Your task to perform on an android device: Search for pizza restaurants on Maps Image 0: 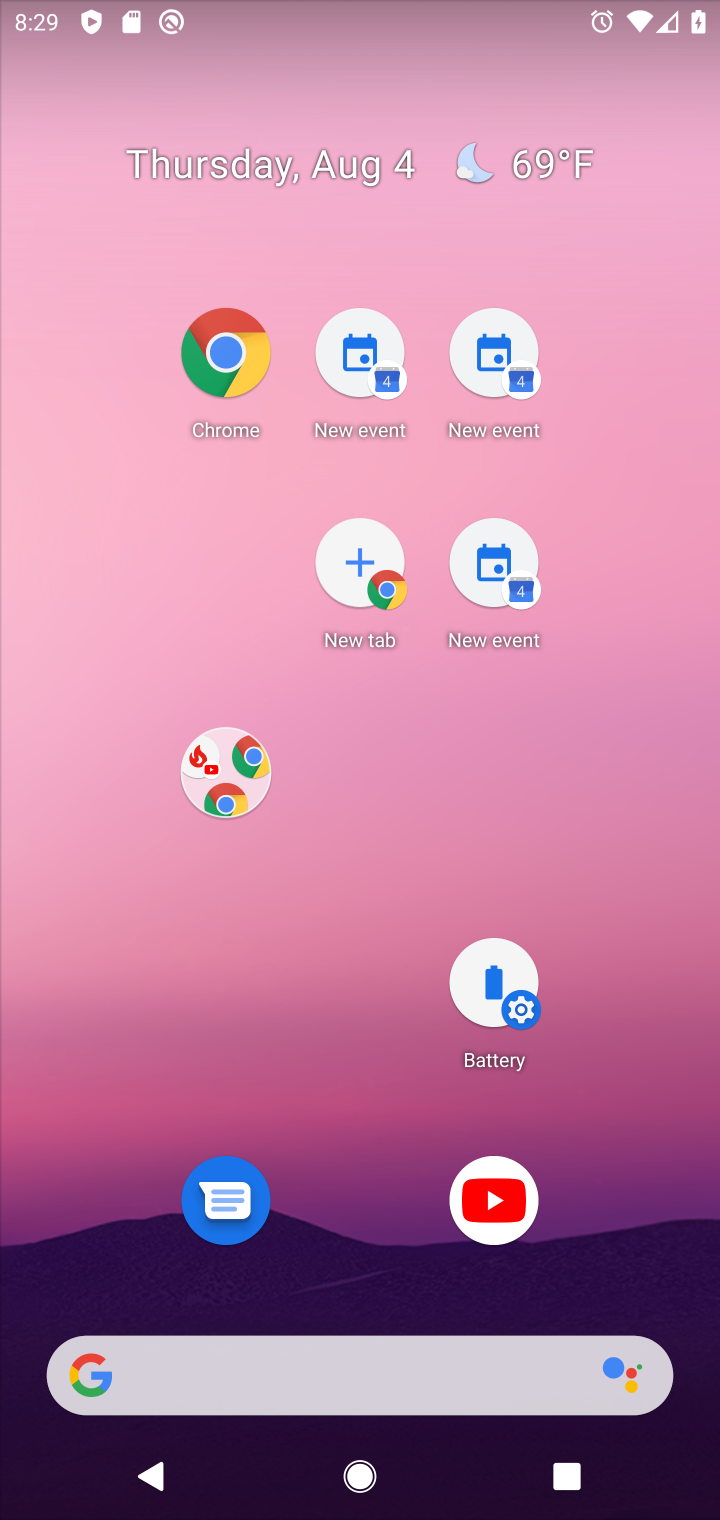
Step 0: drag from (221, 776) to (169, 510)
Your task to perform on an android device: Search for pizza restaurants on Maps Image 1: 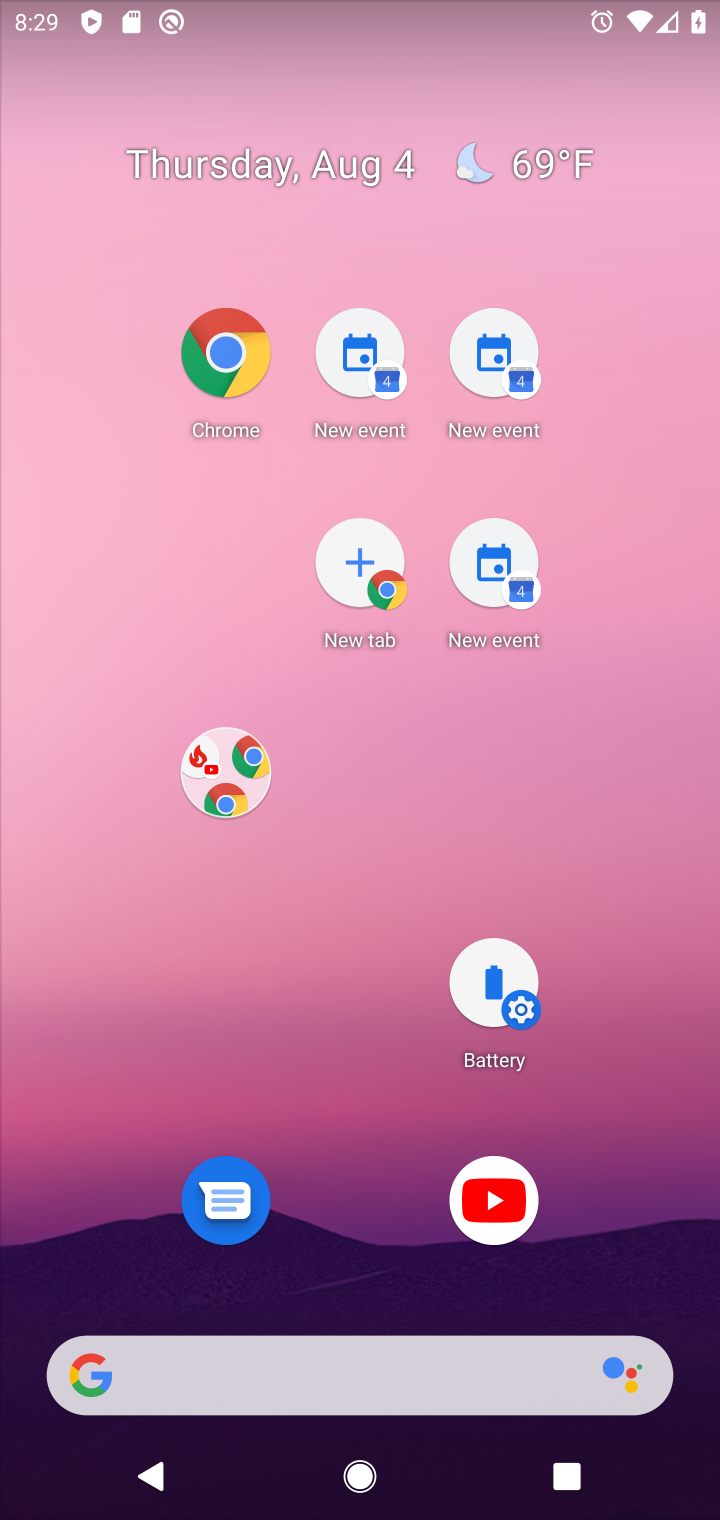
Step 1: click (344, 837)
Your task to perform on an android device: Search for pizza restaurants on Maps Image 2: 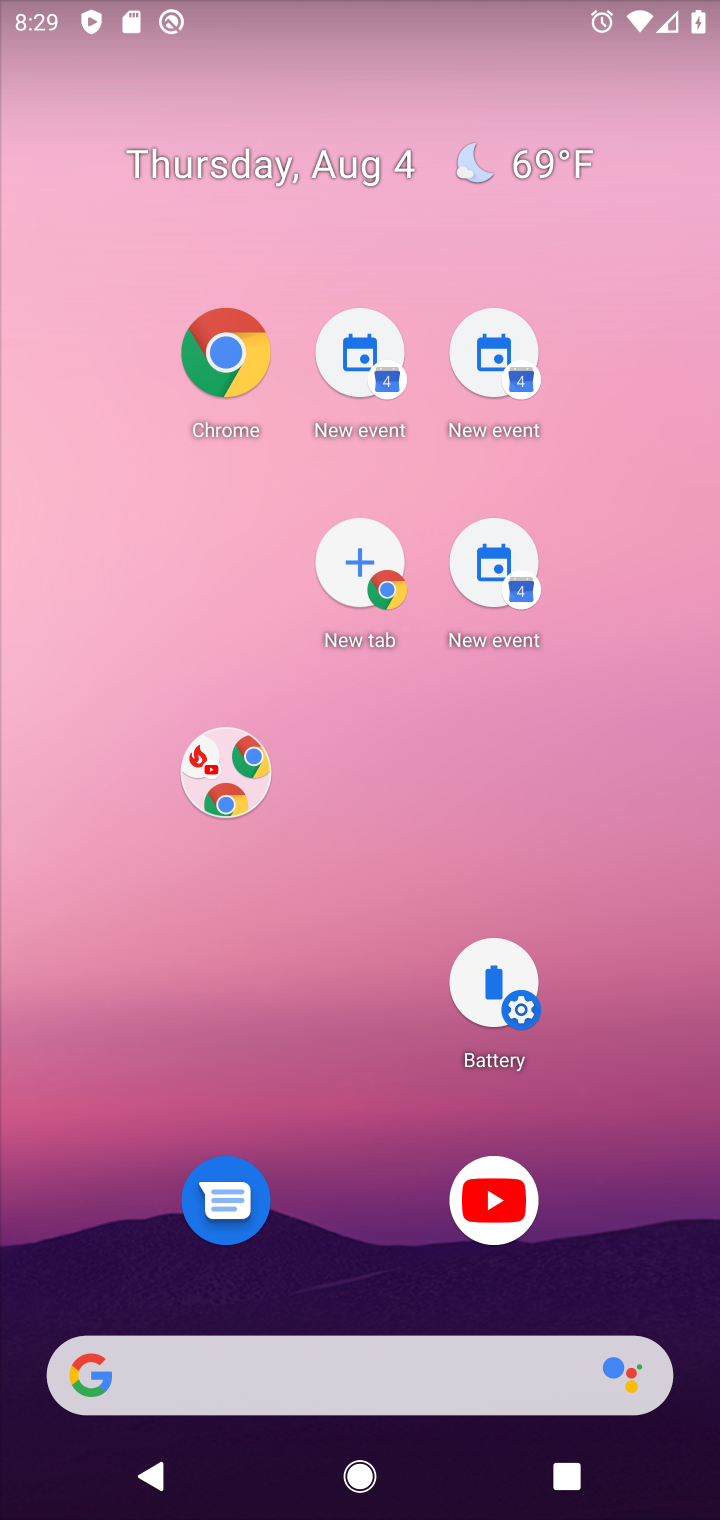
Step 2: drag from (427, 659) to (339, 657)
Your task to perform on an android device: Search for pizza restaurants on Maps Image 3: 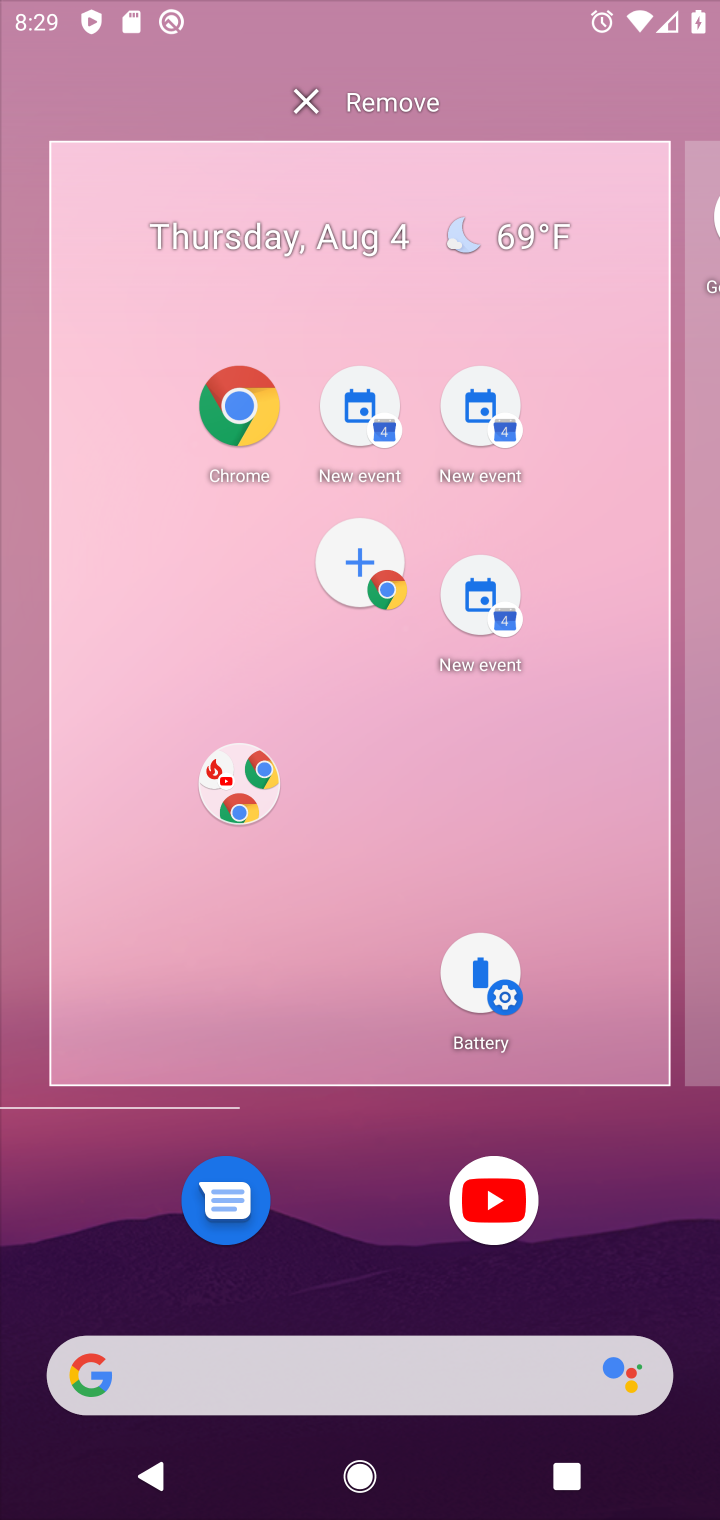
Step 3: drag from (352, 722) to (386, 597)
Your task to perform on an android device: Search for pizza restaurants on Maps Image 4: 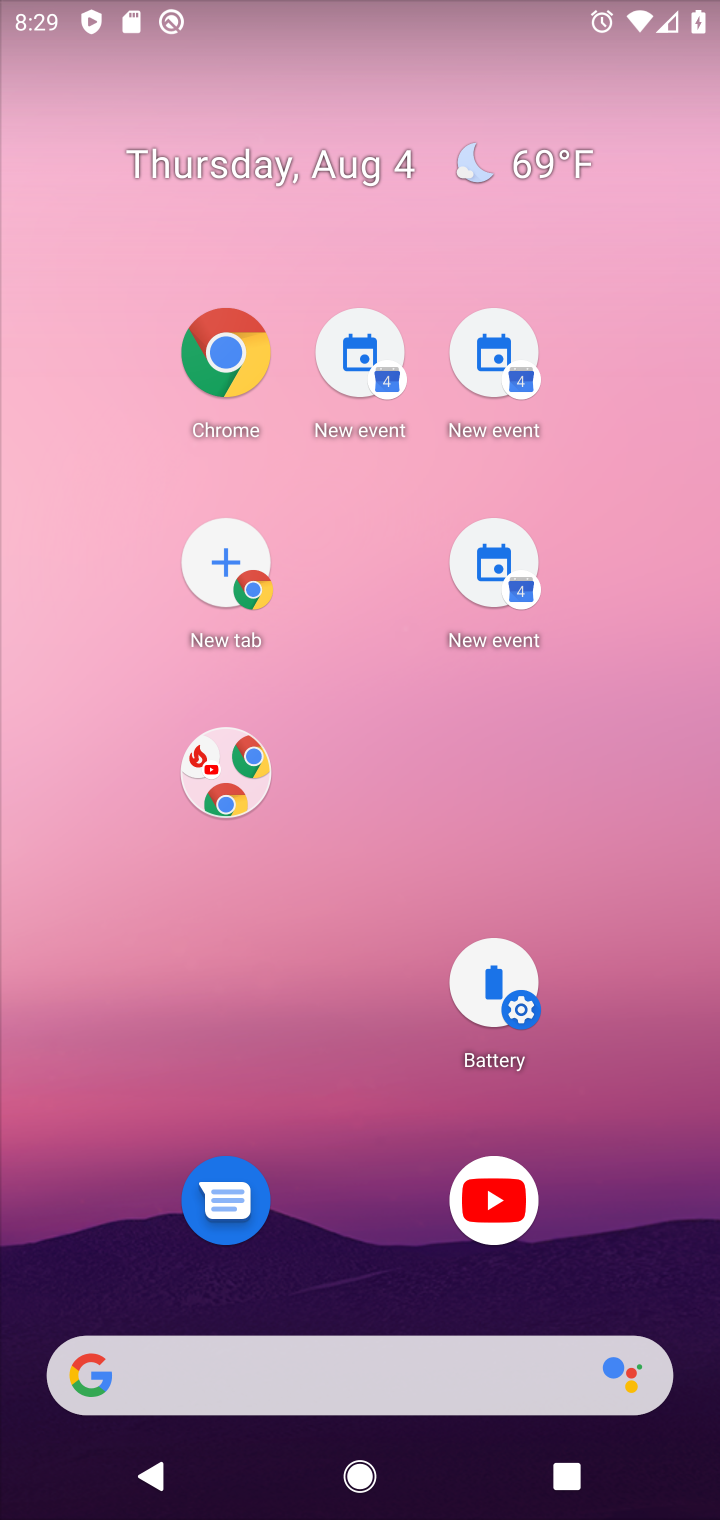
Step 4: drag from (375, 1106) to (270, 215)
Your task to perform on an android device: Search for pizza restaurants on Maps Image 5: 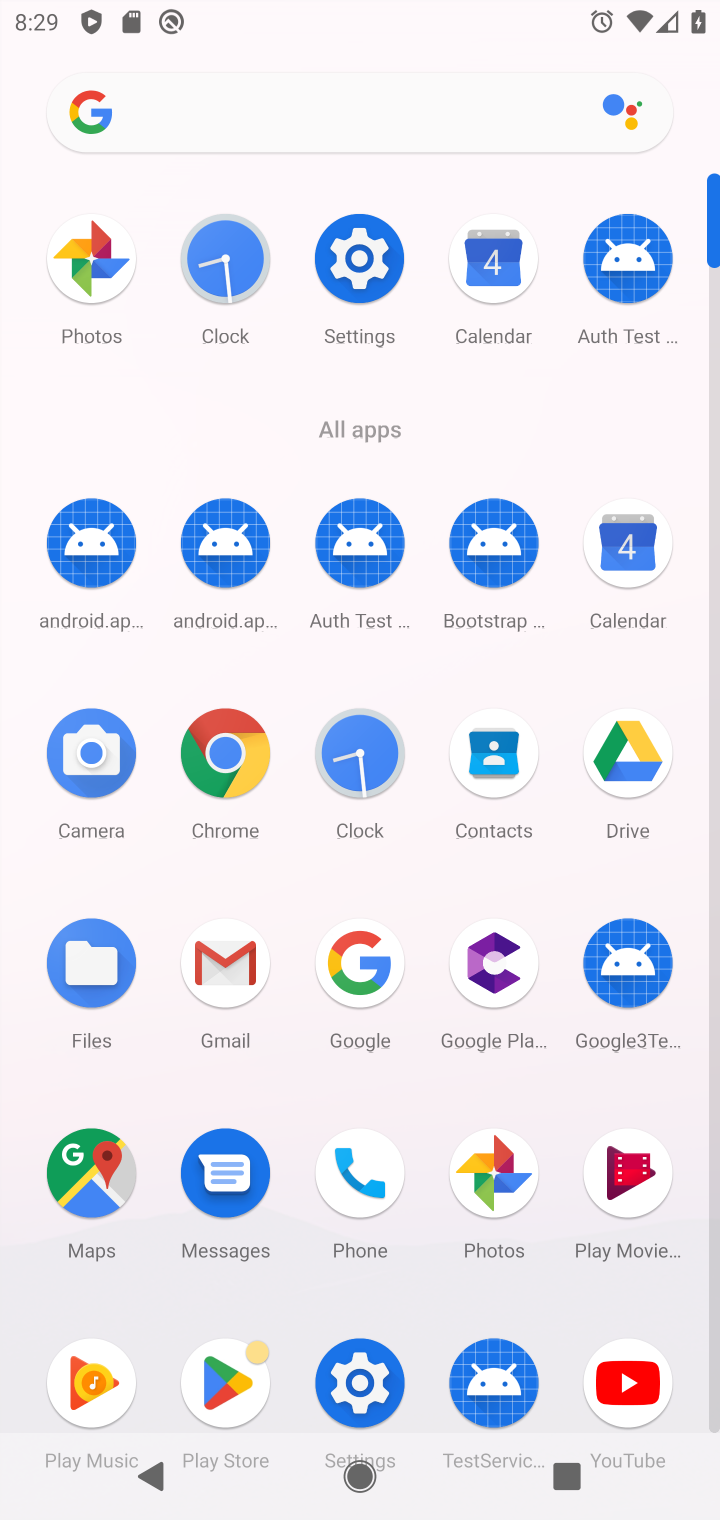
Step 5: drag from (307, 627) to (307, 227)
Your task to perform on an android device: Search for pizza restaurants on Maps Image 6: 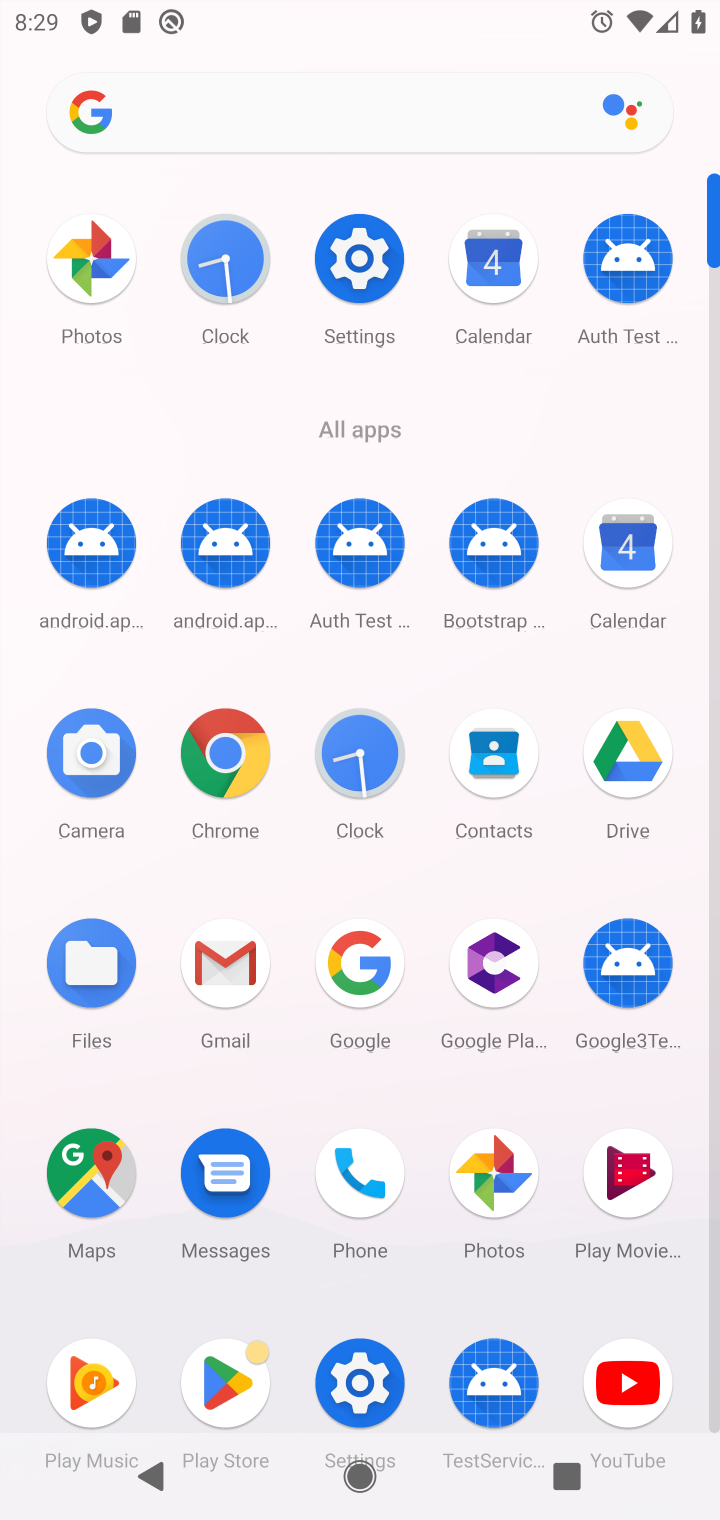
Step 6: click (110, 1168)
Your task to perform on an android device: Search for pizza restaurants on Maps Image 7: 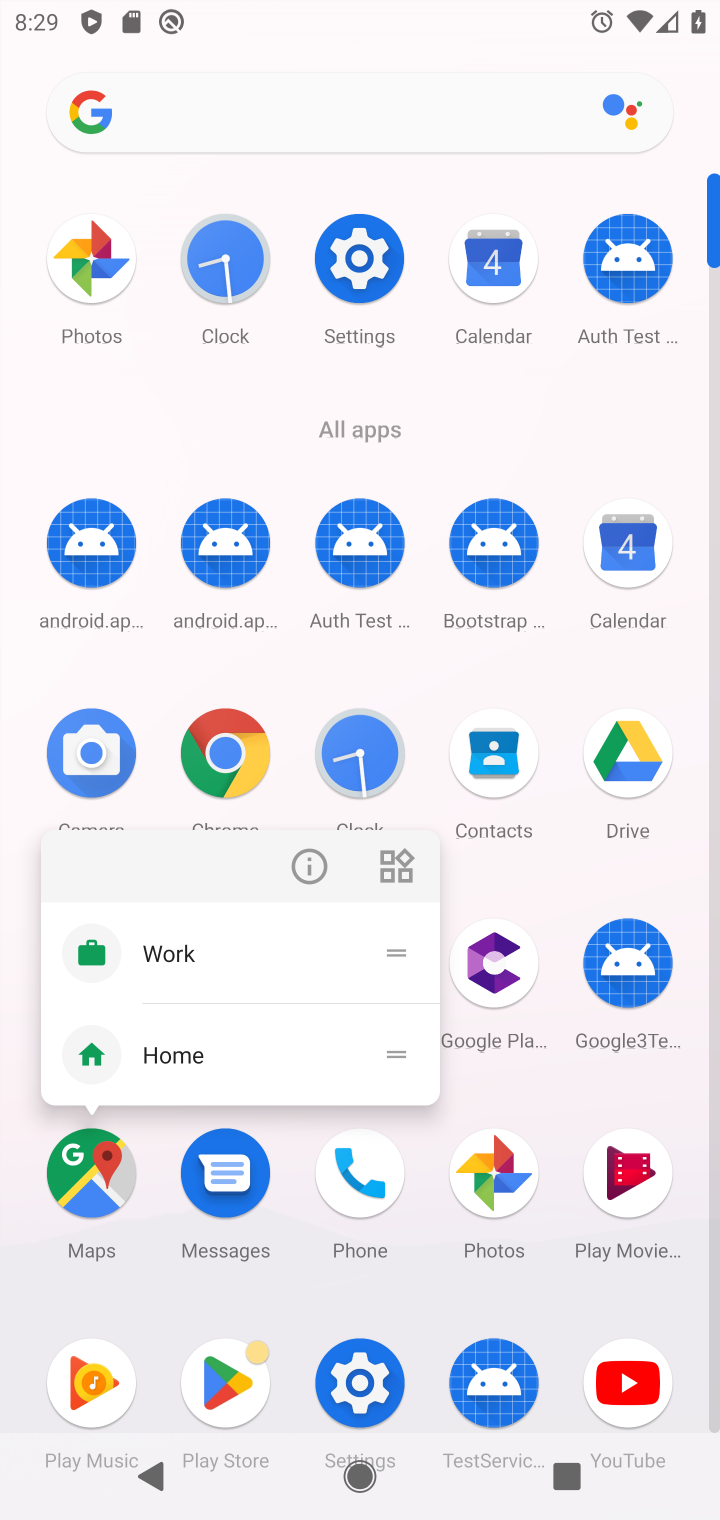
Step 7: click (78, 1150)
Your task to perform on an android device: Search for pizza restaurants on Maps Image 8: 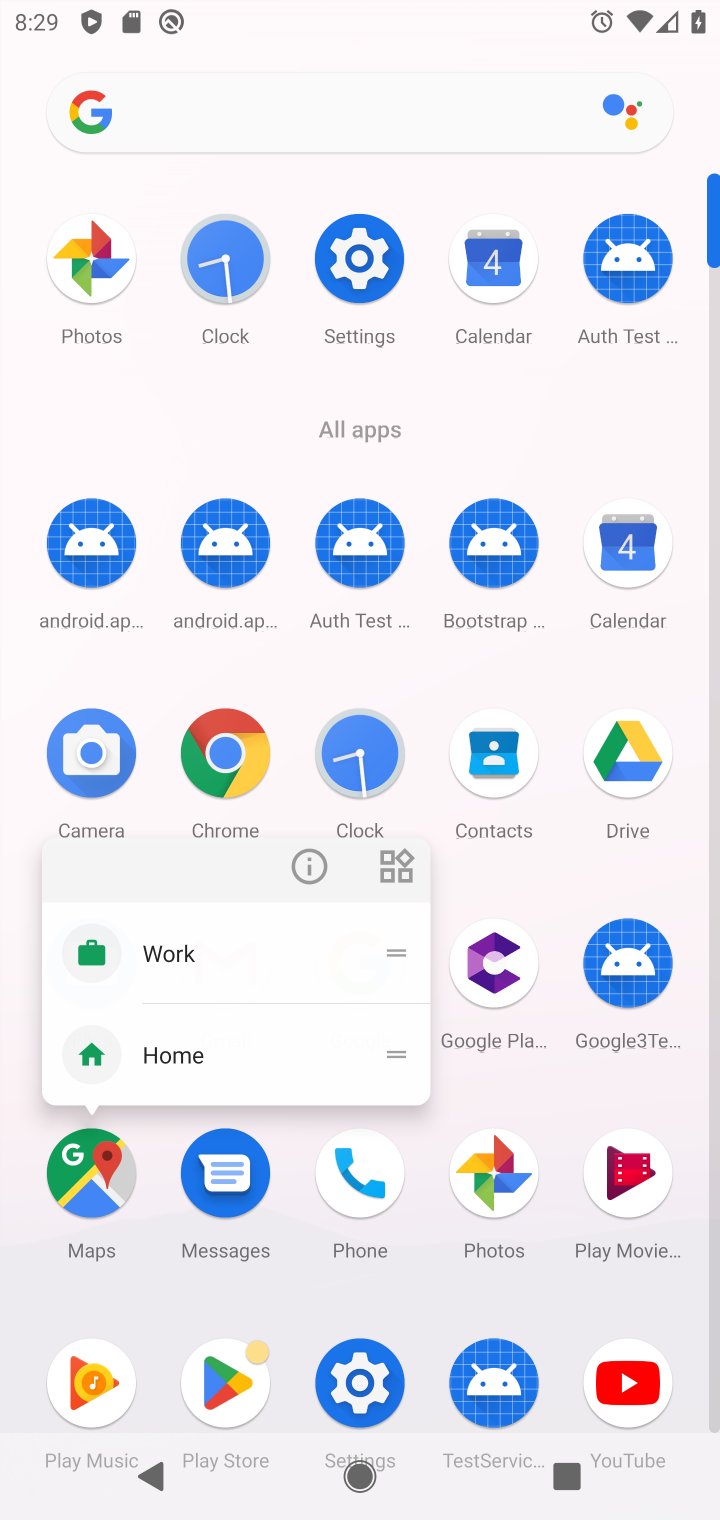
Step 8: click (165, 957)
Your task to perform on an android device: Search for pizza restaurants on Maps Image 9: 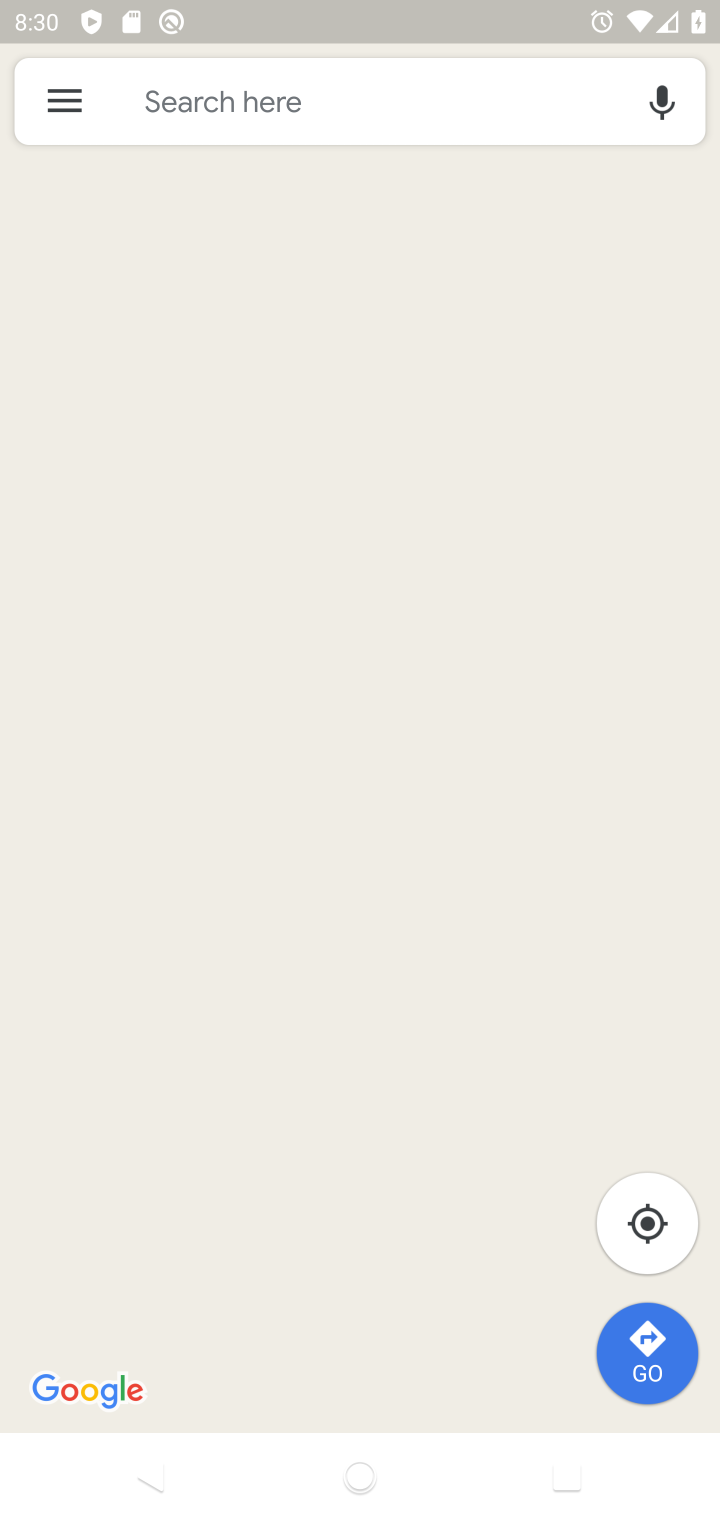
Step 9: click (167, 99)
Your task to perform on an android device: Search for pizza restaurants on Maps Image 10: 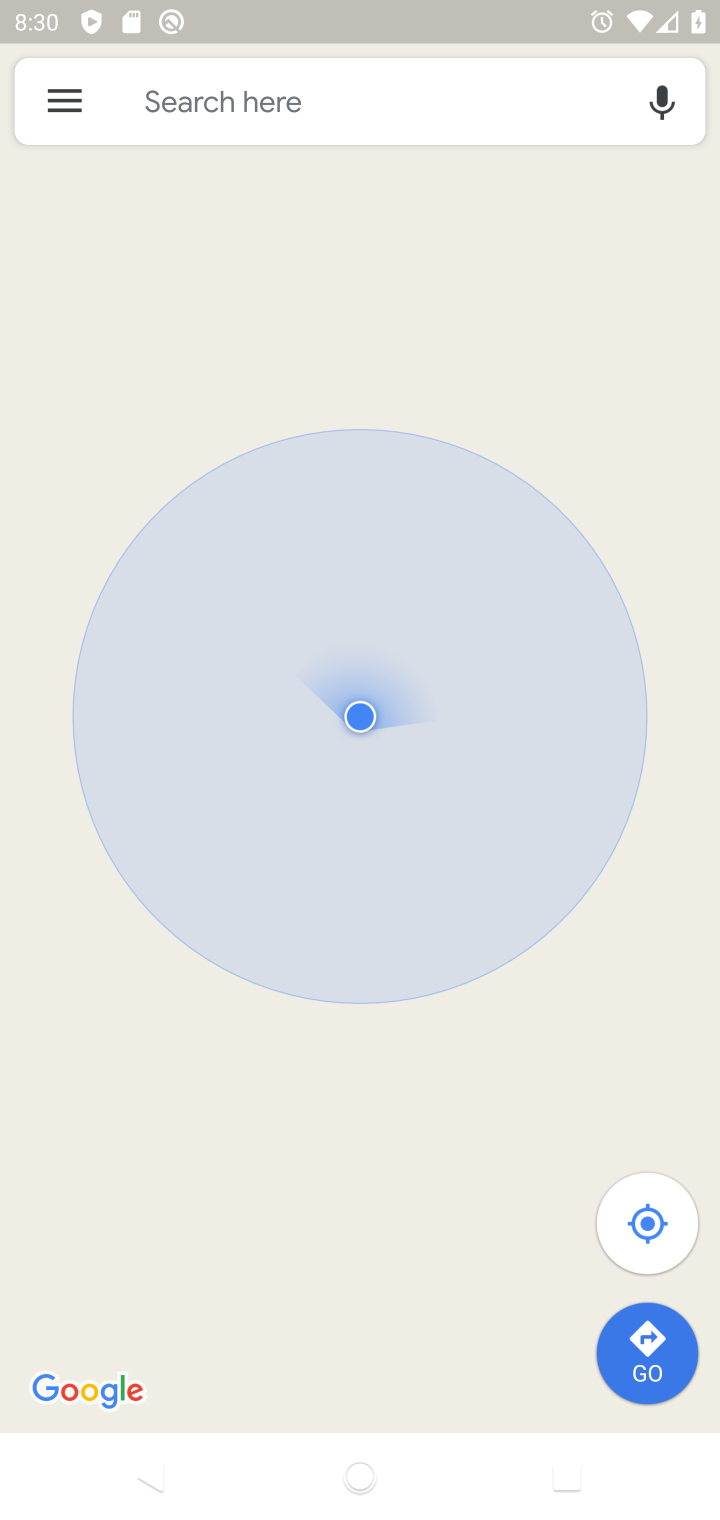
Step 10: click (170, 110)
Your task to perform on an android device: Search for pizza restaurants on Maps Image 11: 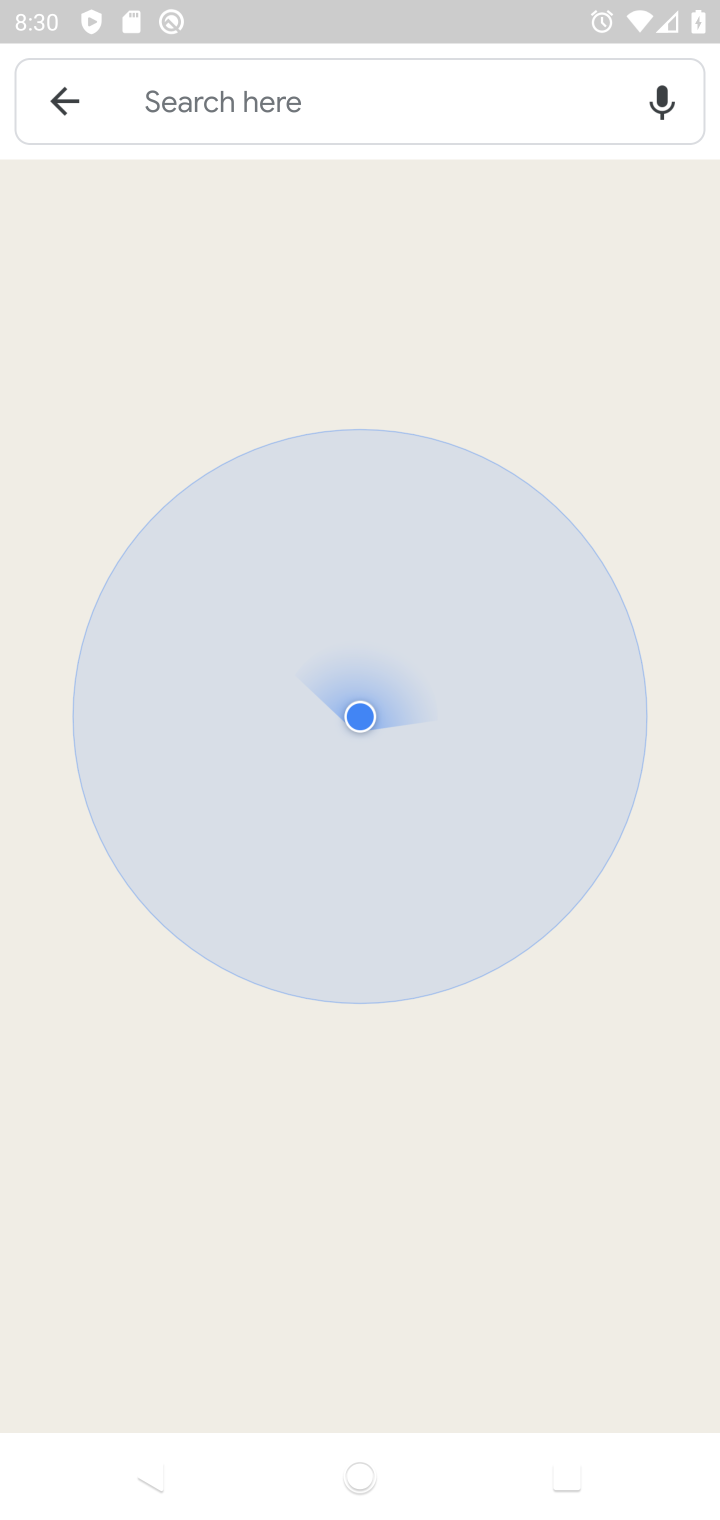
Step 11: click (170, 87)
Your task to perform on an android device: Search for pizza restaurants on Maps Image 12: 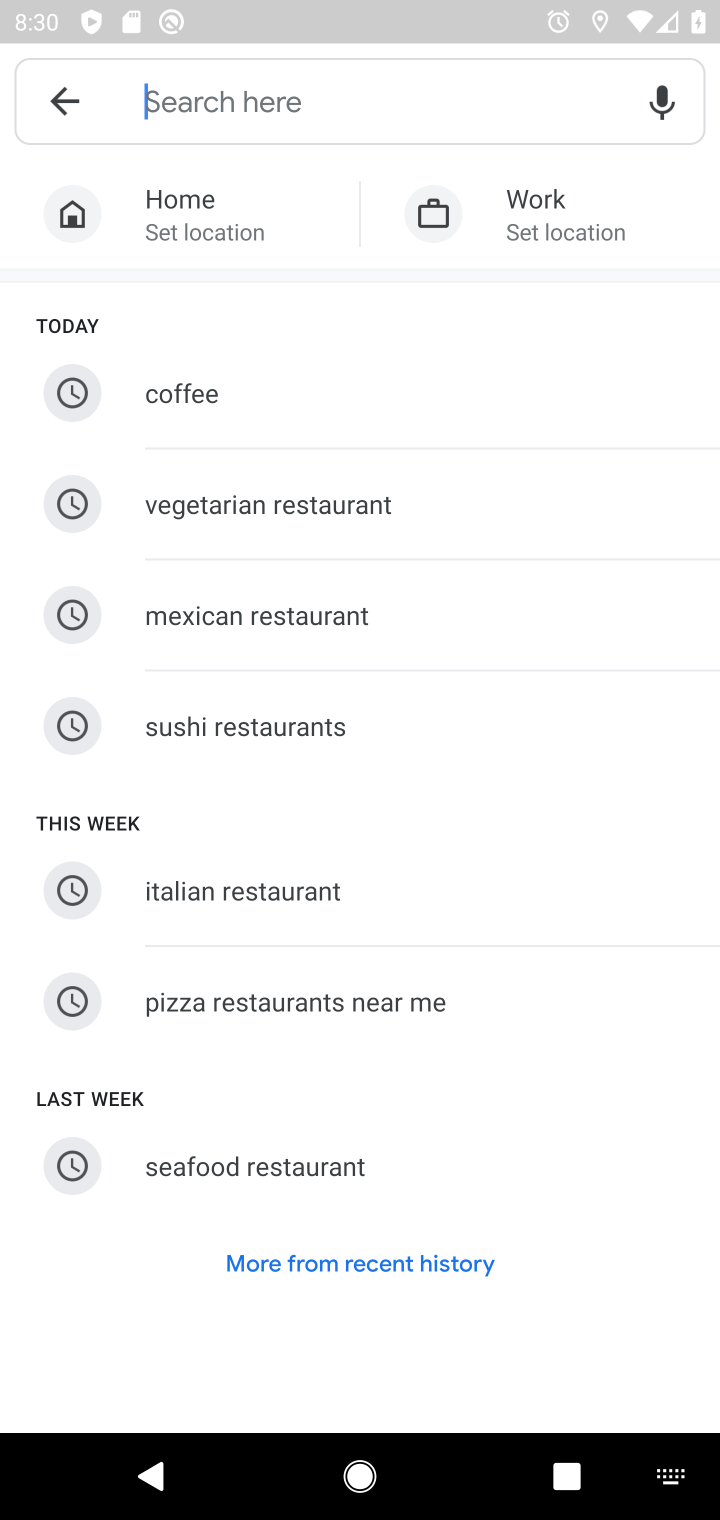
Step 12: type "pizza restaurants"
Your task to perform on an android device: Search for pizza restaurants on Maps Image 13: 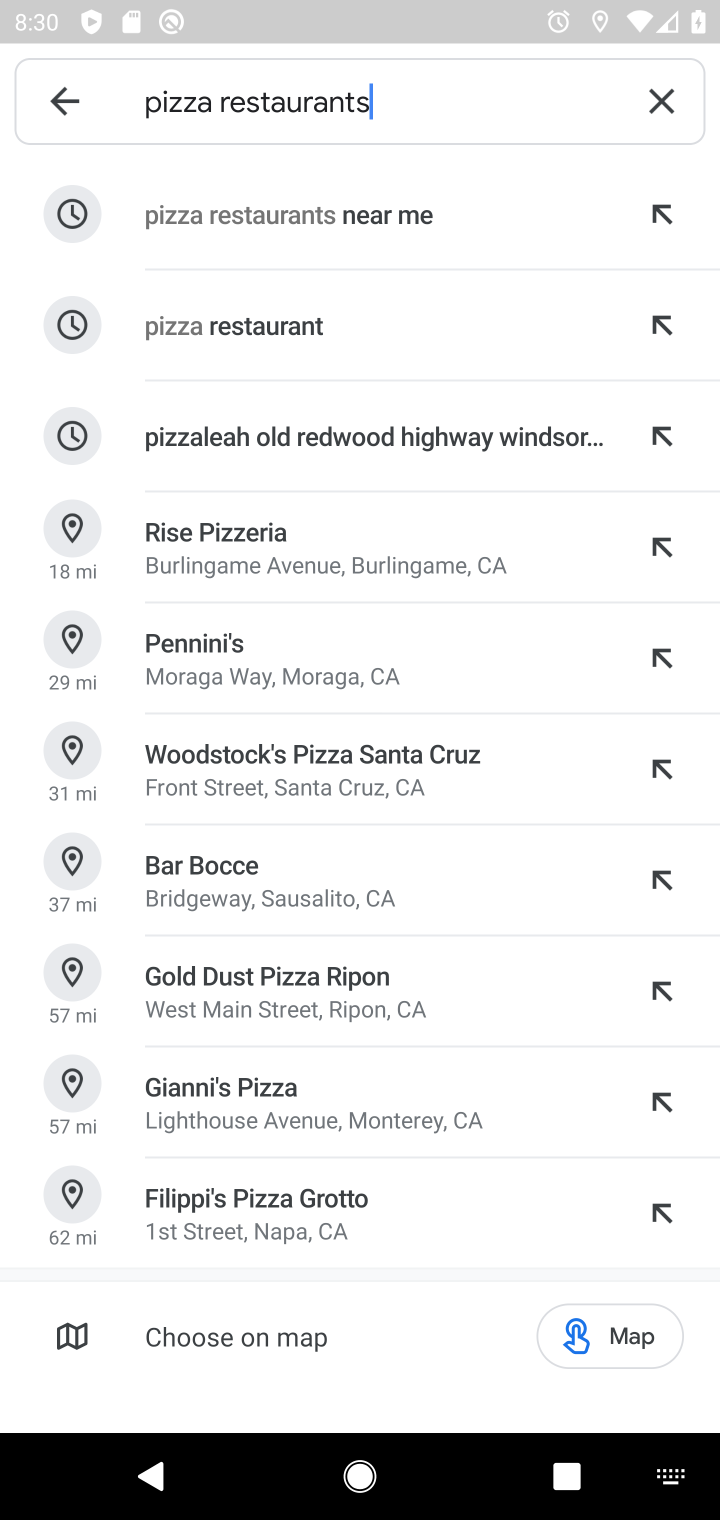
Step 13: click (225, 329)
Your task to perform on an android device: Search for pizza restaurants on Maps Image 14: 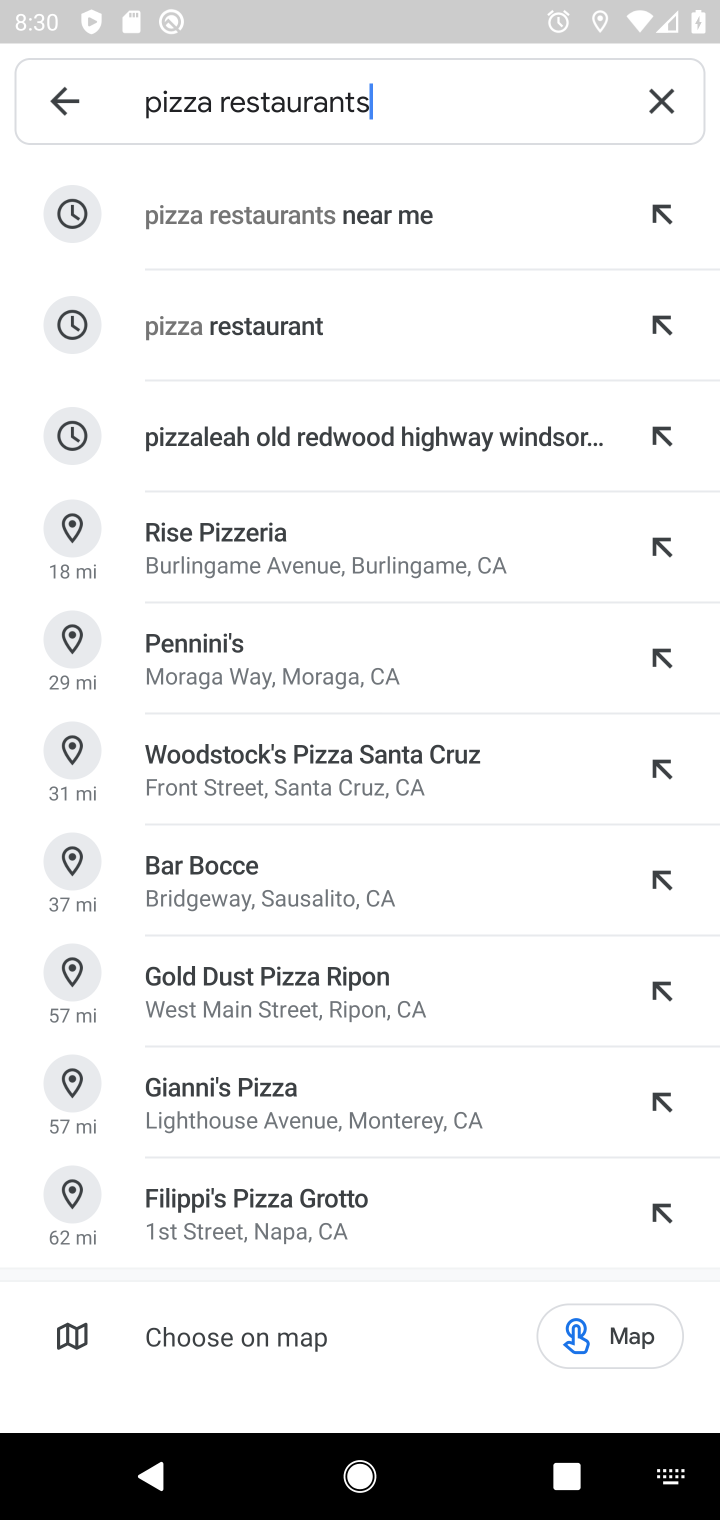
Step 14: click (223, 331)
Your task to perform on an android device: Search for pizza restaurants on Maps Image 15: 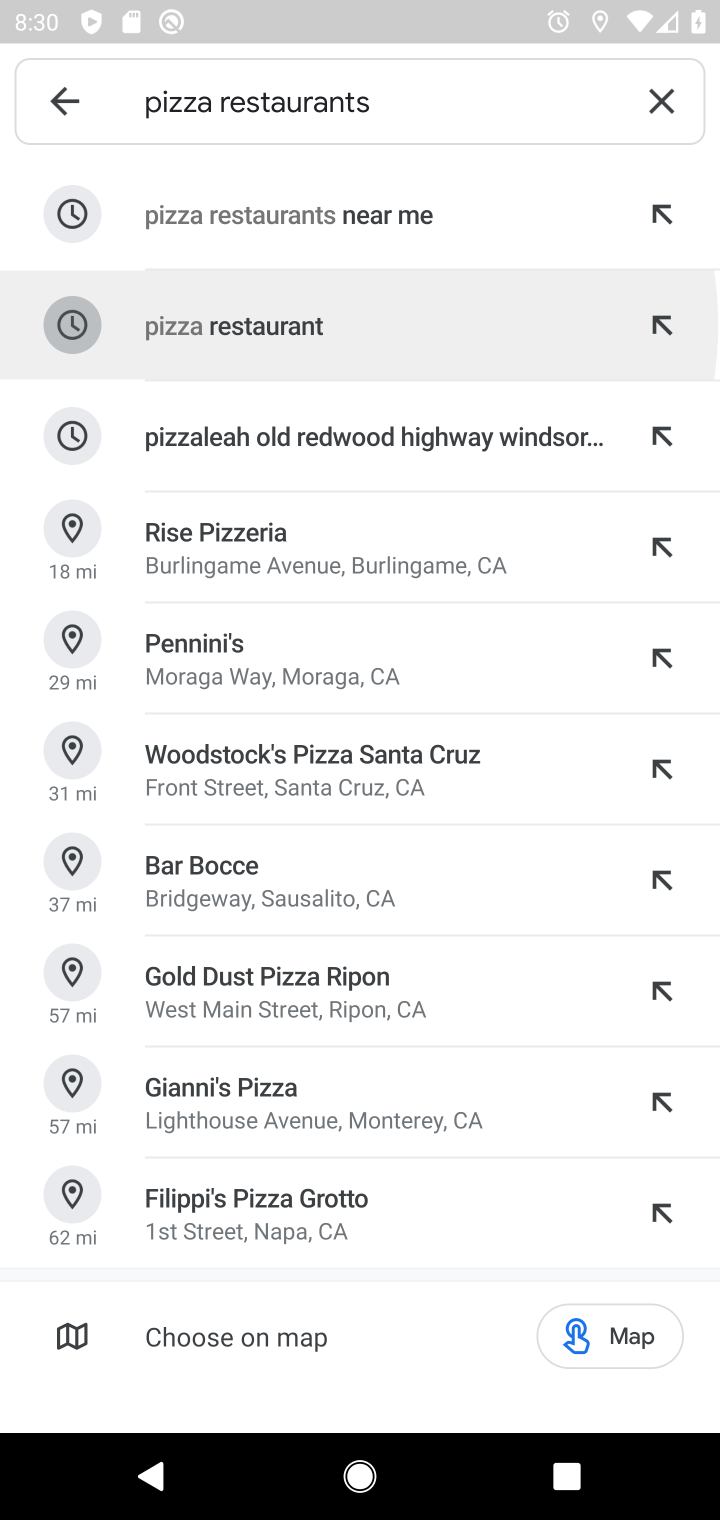
Step 15: click (223, 332)
Your task to perform on an android device: Search for pizza restaurants on Maps Image 16: 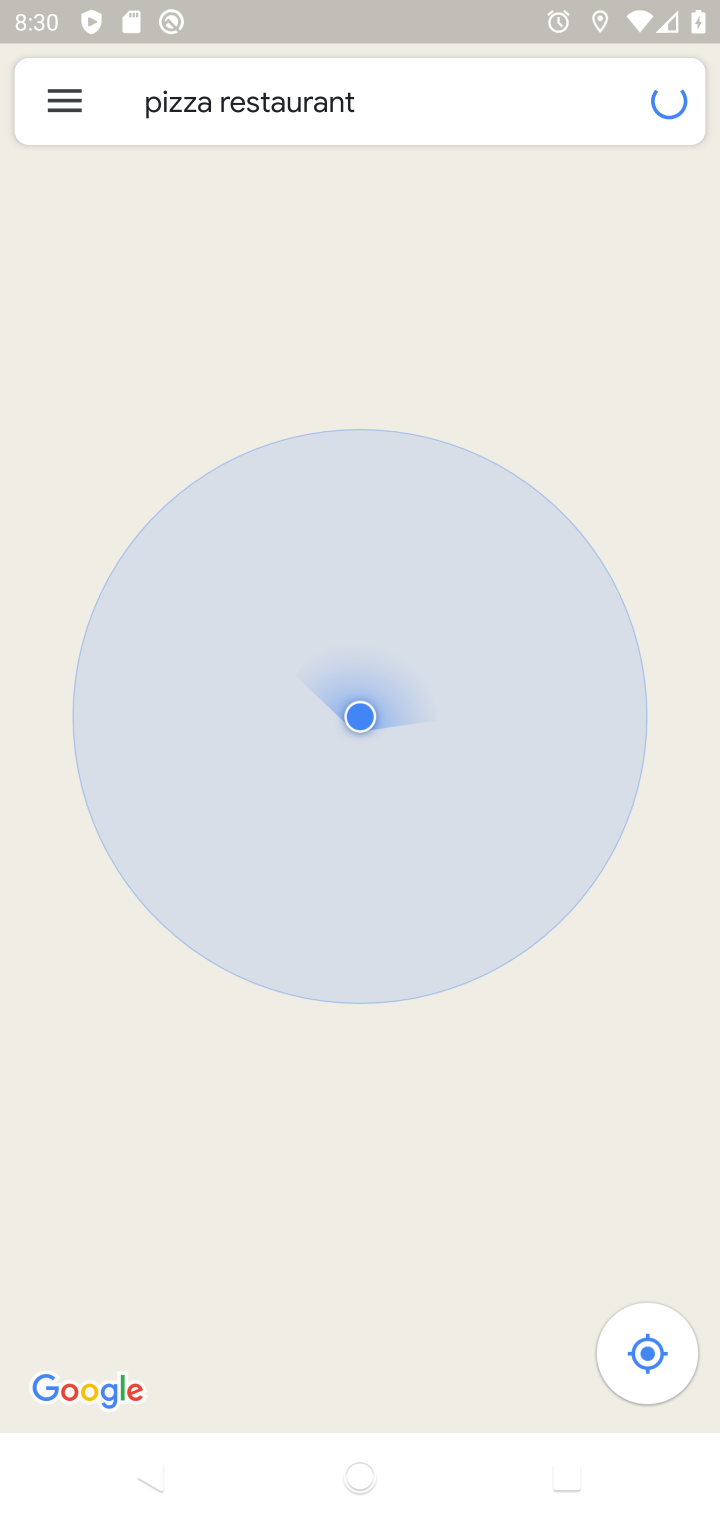
Step 16: click (234, 329)
Your task to perform on an android device: Search for pizza restaurants on Maps Image 17: 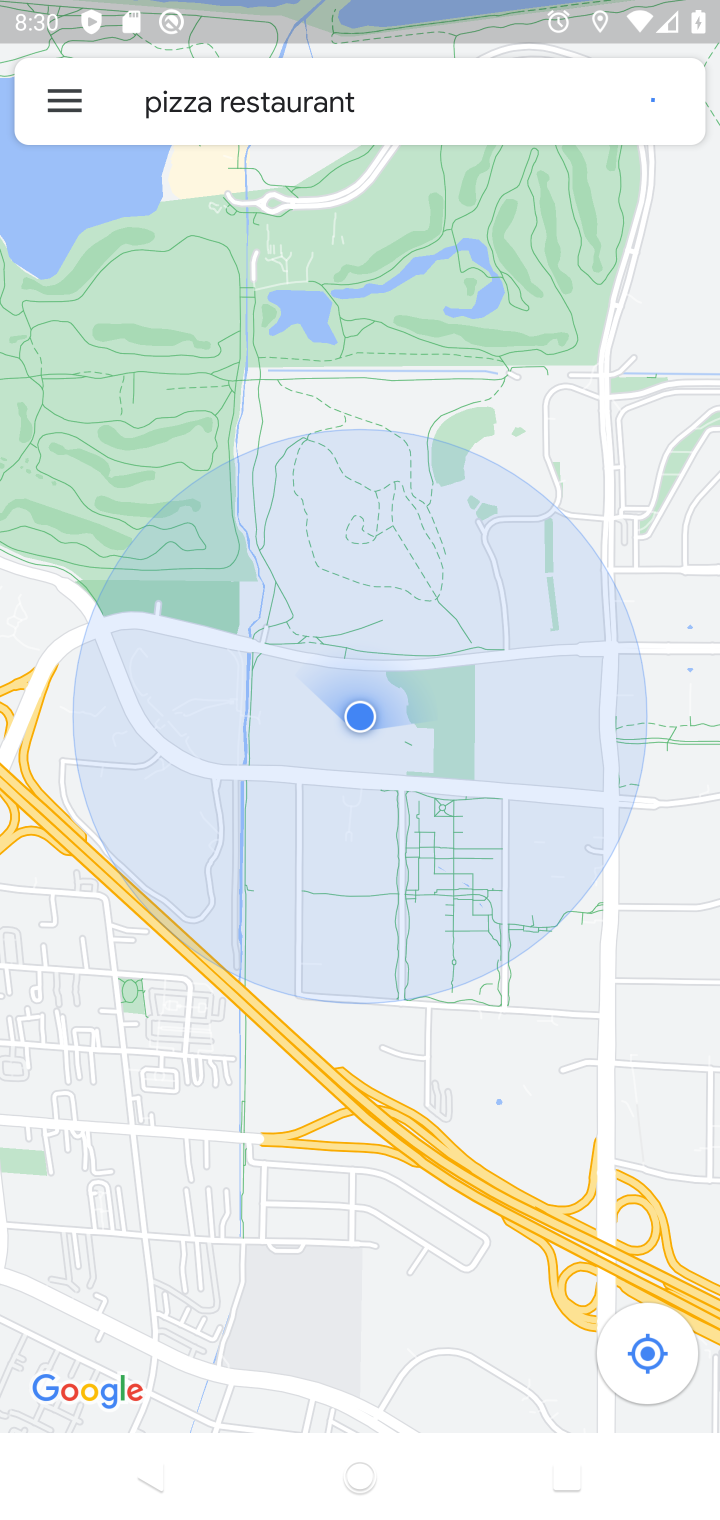
Step 17: task complete